Your task to perform on an android device: allow cookies in the chrome app Image 0: 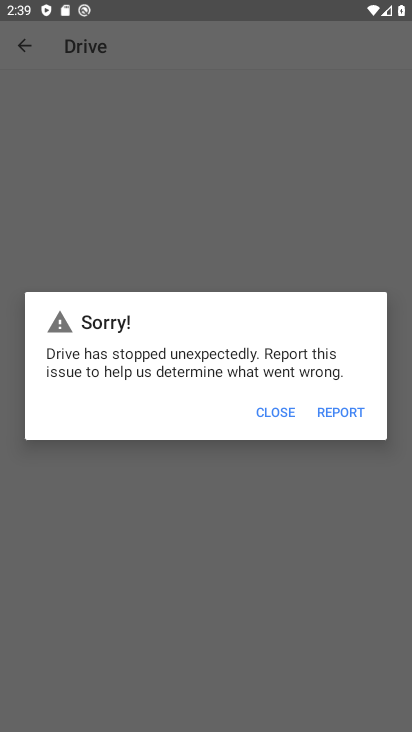
Step 0: press home button
Your task to perform on an android device: allow cookies in the chrome app Image 1: 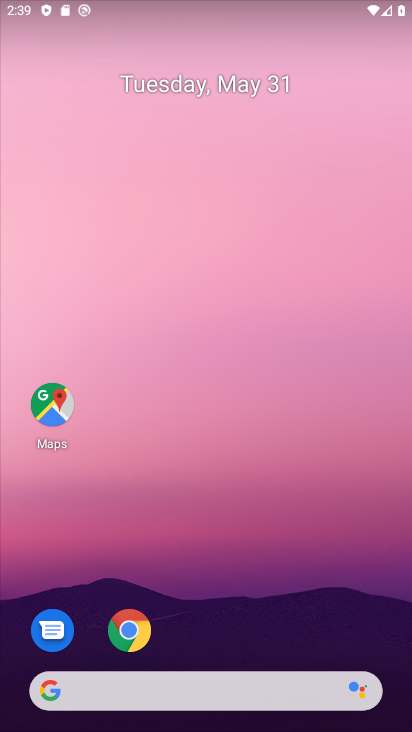
Step 1: click (136, 624)
Your task to perform on an android device: allow cookies in the chrome app Image 2: 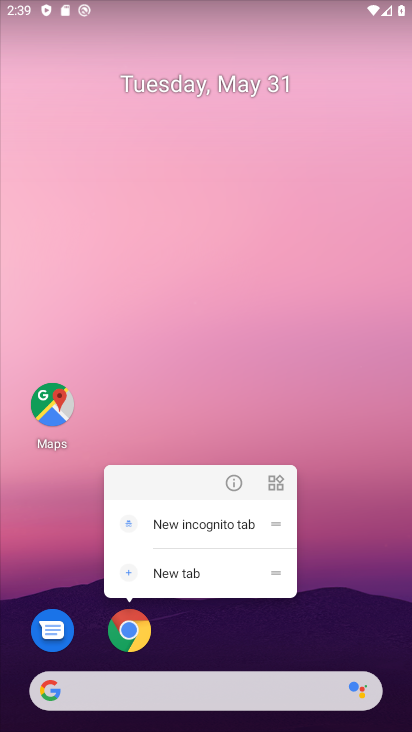
Step 2: click (192, 616)
Your task to perform on an android device: allow cookies in the chrome app Image 3: 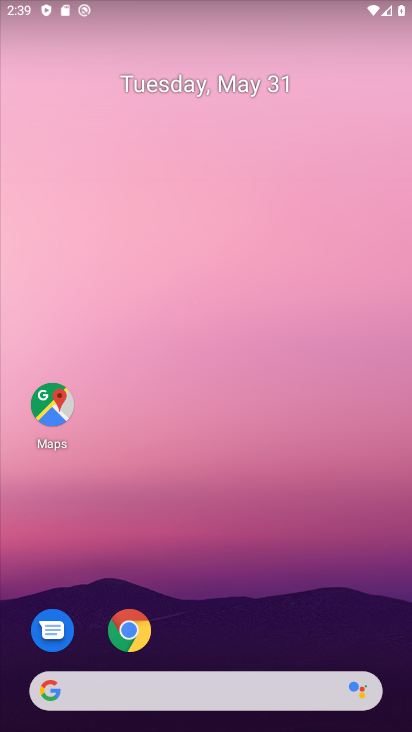
Step 3: drag from (197, 619) to (235, 41)
Your task to perform on an android device: allow cookies in the chrome app Image 4: 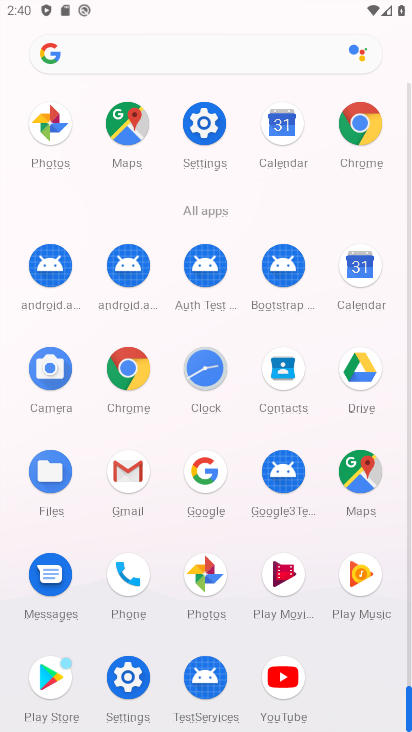
Step 4: click (113, 369)
Your task to perform on an android device: allow cookies in the chrome app Image 5: 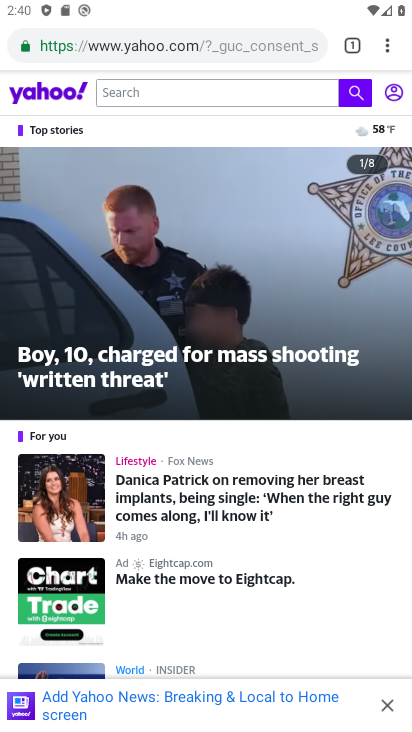
Step 5: drag from (391, 44) to (263, 554)
Your task to perform on an android device: allow cookies in the chrome app Image 6: 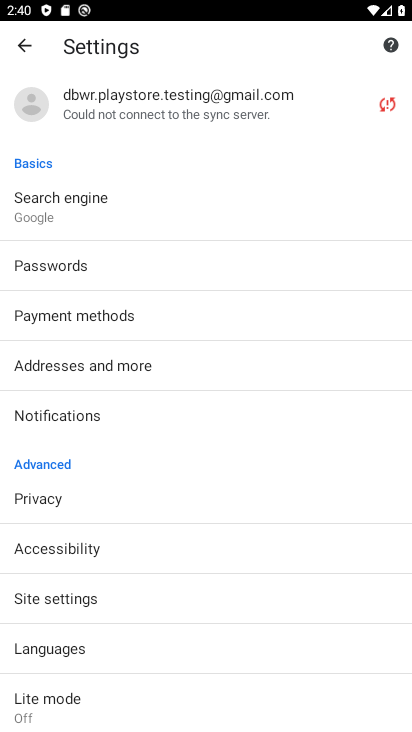
Step 6: click (65, 602)
Your task to perform on an android device: allow cookies in the chrome app Image 7: 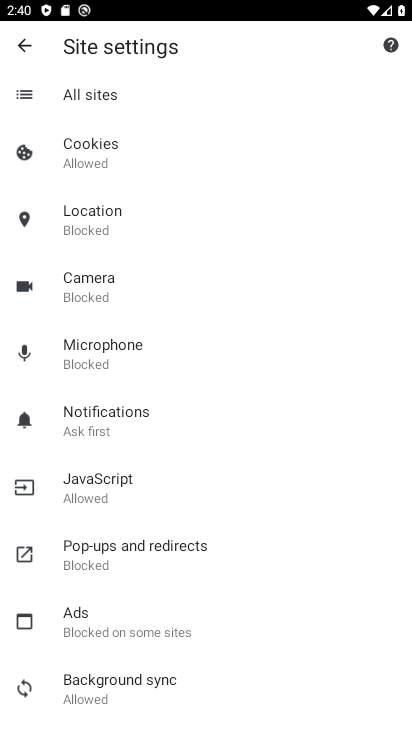
Step 7: click (120, 138)
Your task to perform on an android device: allow cookies in the chrome app Image 8: 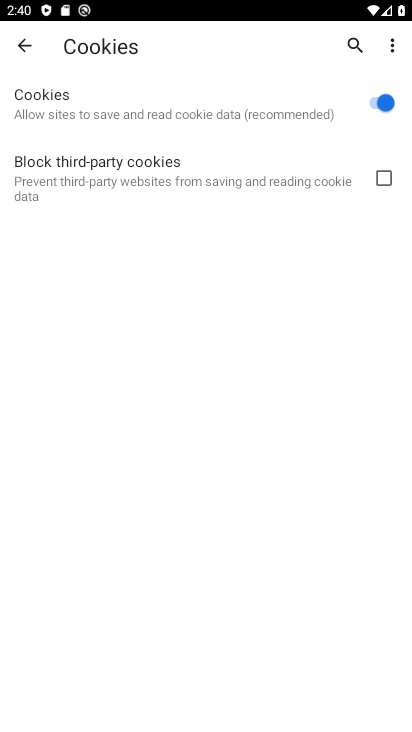
Step 8: task complete